Your task to perform on an android device: Is it going to rain today? Image 0: 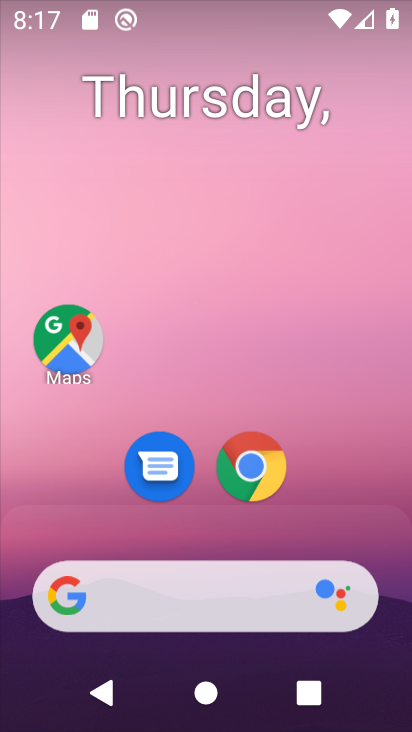
Step 0: click (195, 600)
Your task to perform on an android device: Is it going to rain today? Image 1: 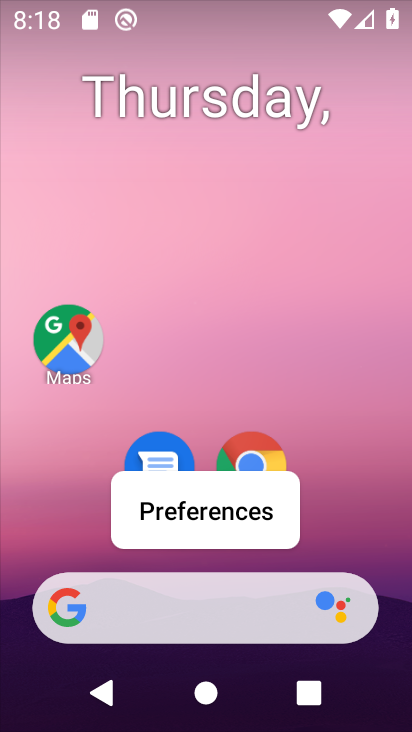
Step 1: click (148, 602)
Your task to perform on an android device: Is it going to rain today? Image 2: 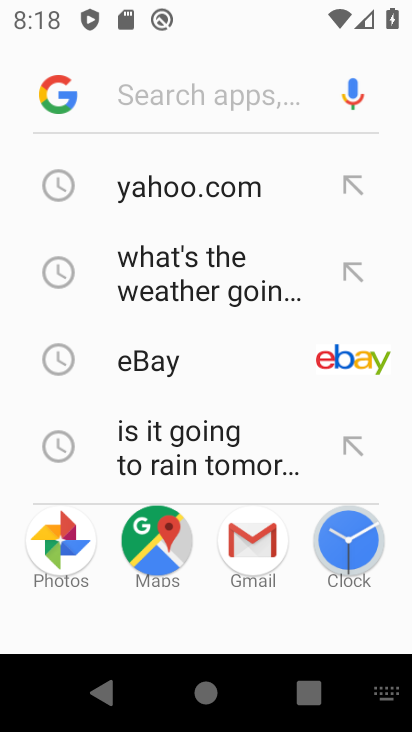
Step 2: type "is it going to rain today"
Your task to perform on an android device: Is it going to rain today? Image 3: 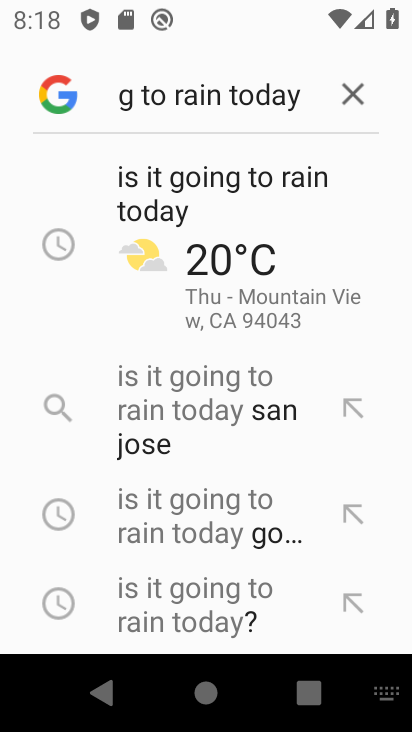
Step 3: click (338, 216)
Your task to perform on an android device: Is it going to rain today? Image 4: 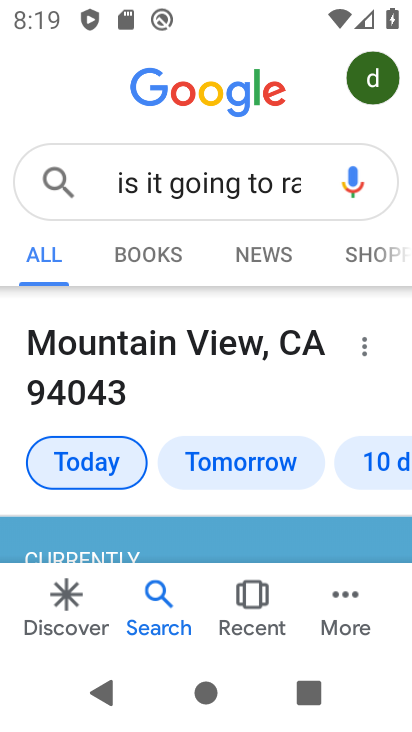
Step 4: task complete